Your task to perform on an android device: Is it going to rain this weekend? Image 0: 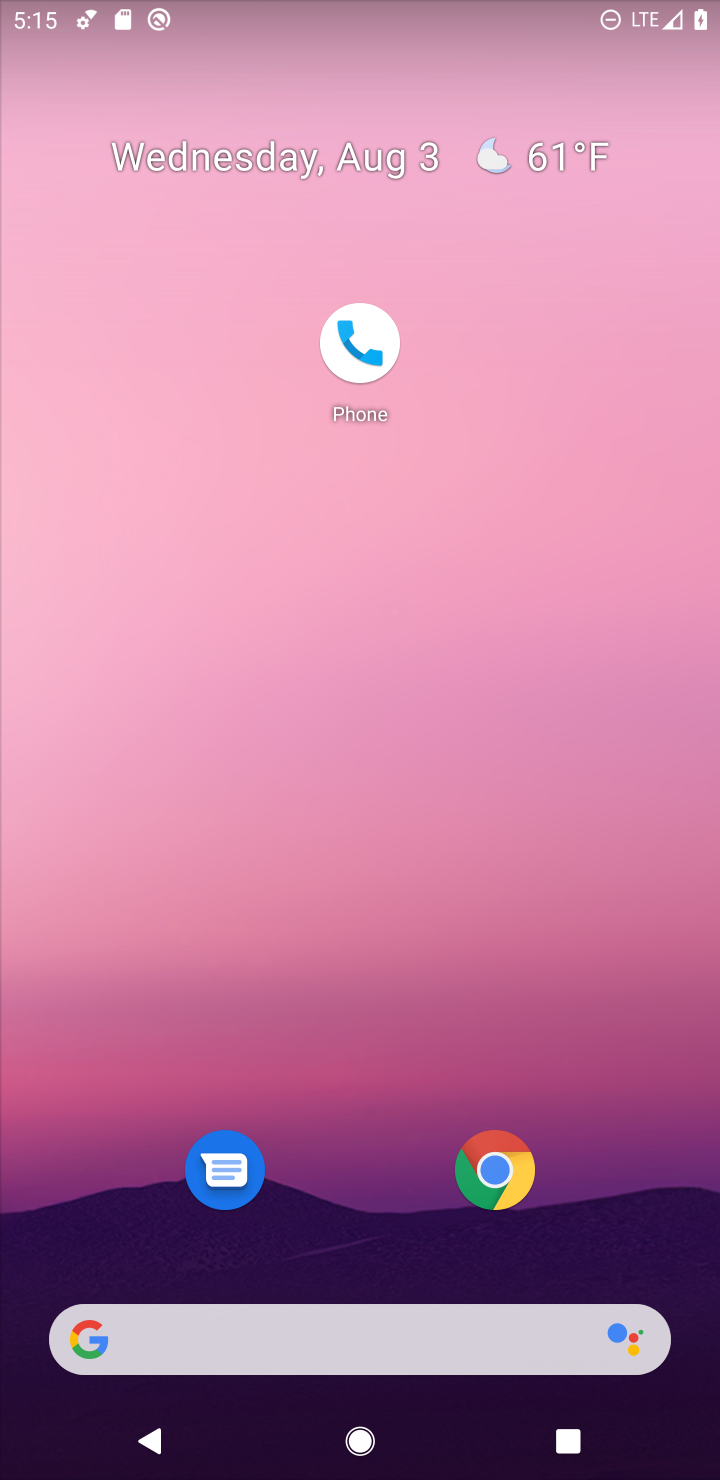
Step 0: click (233, 1335)
Your task to perform on an android device: Is it going to rain this weekend? Image 1: 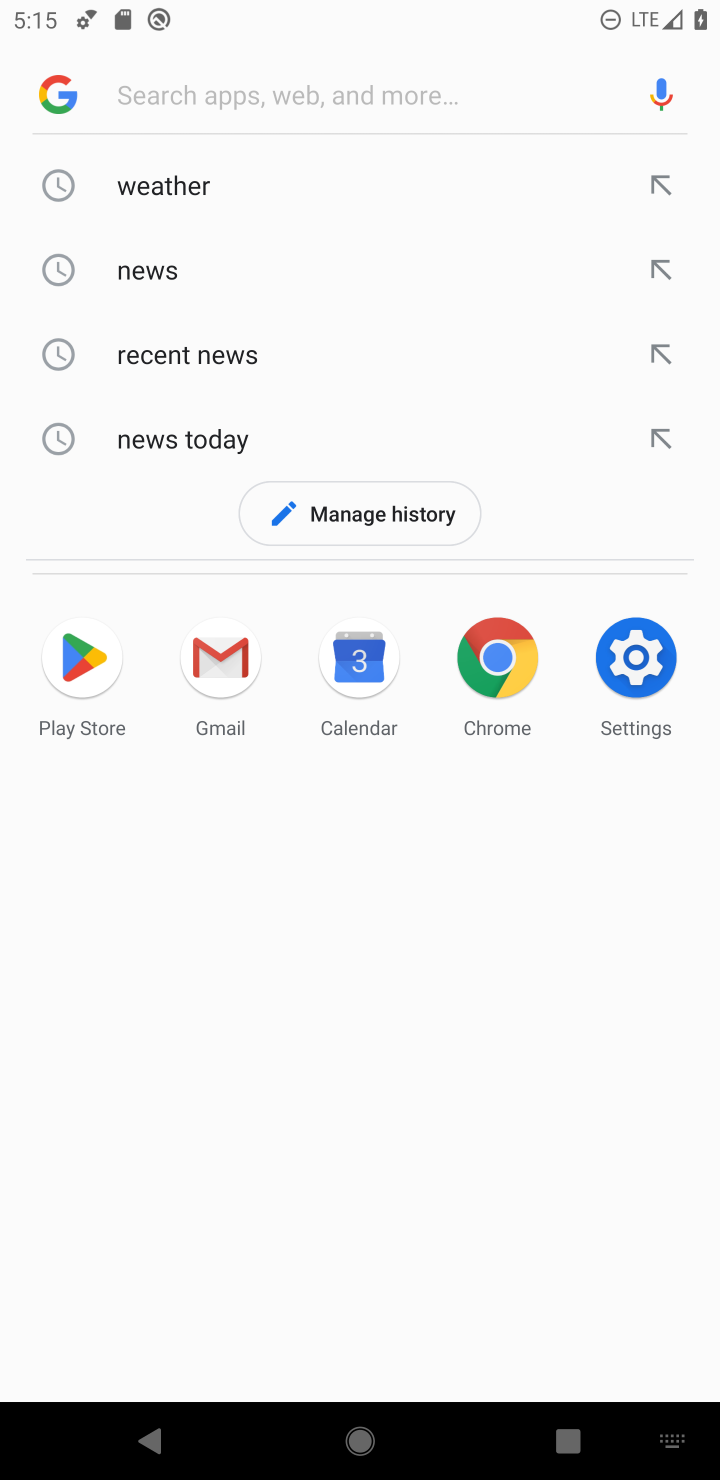
Step 1: click (185, 178)
Your task to perform on an android device: Is it going to rain this weekend? Image 2: 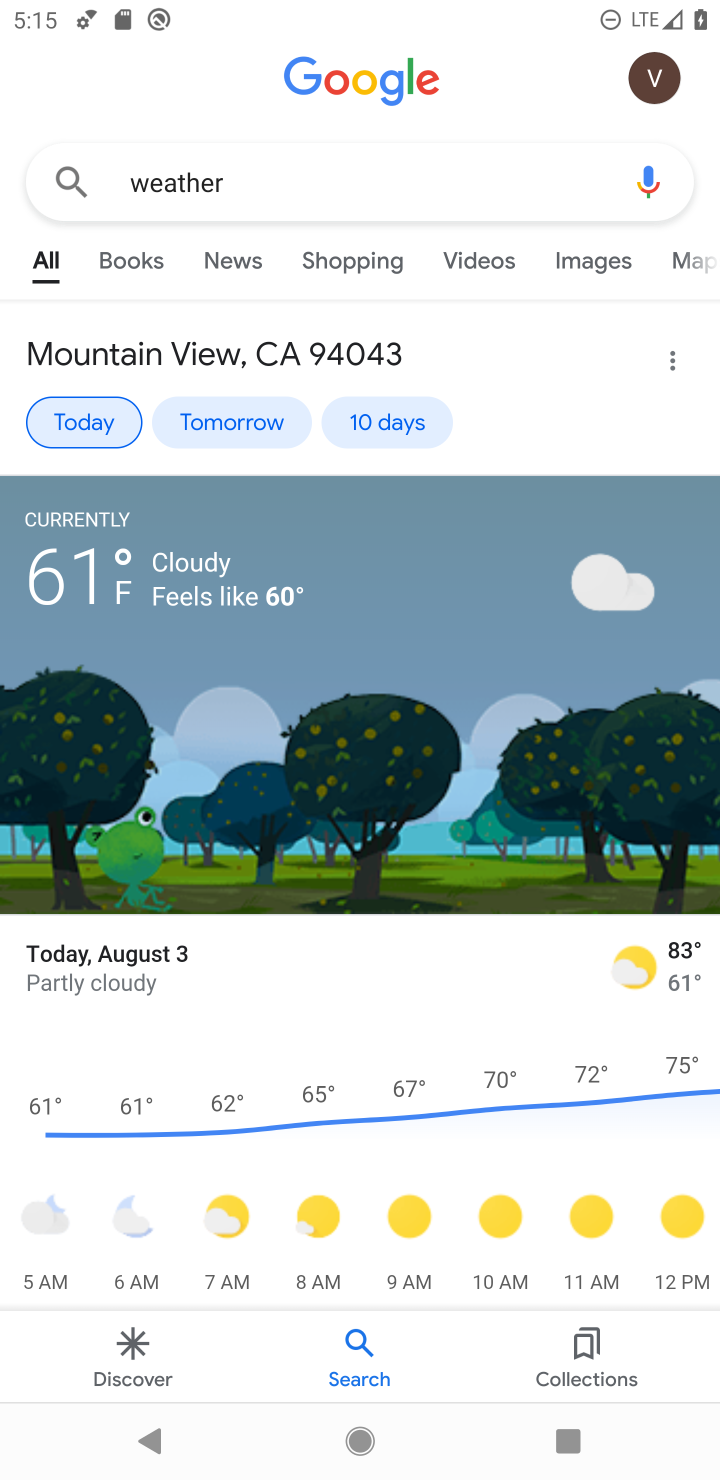
Step 2: click (388, 419)
Your task to perform on an android device: Is it going to rain this weekend? Image 3: 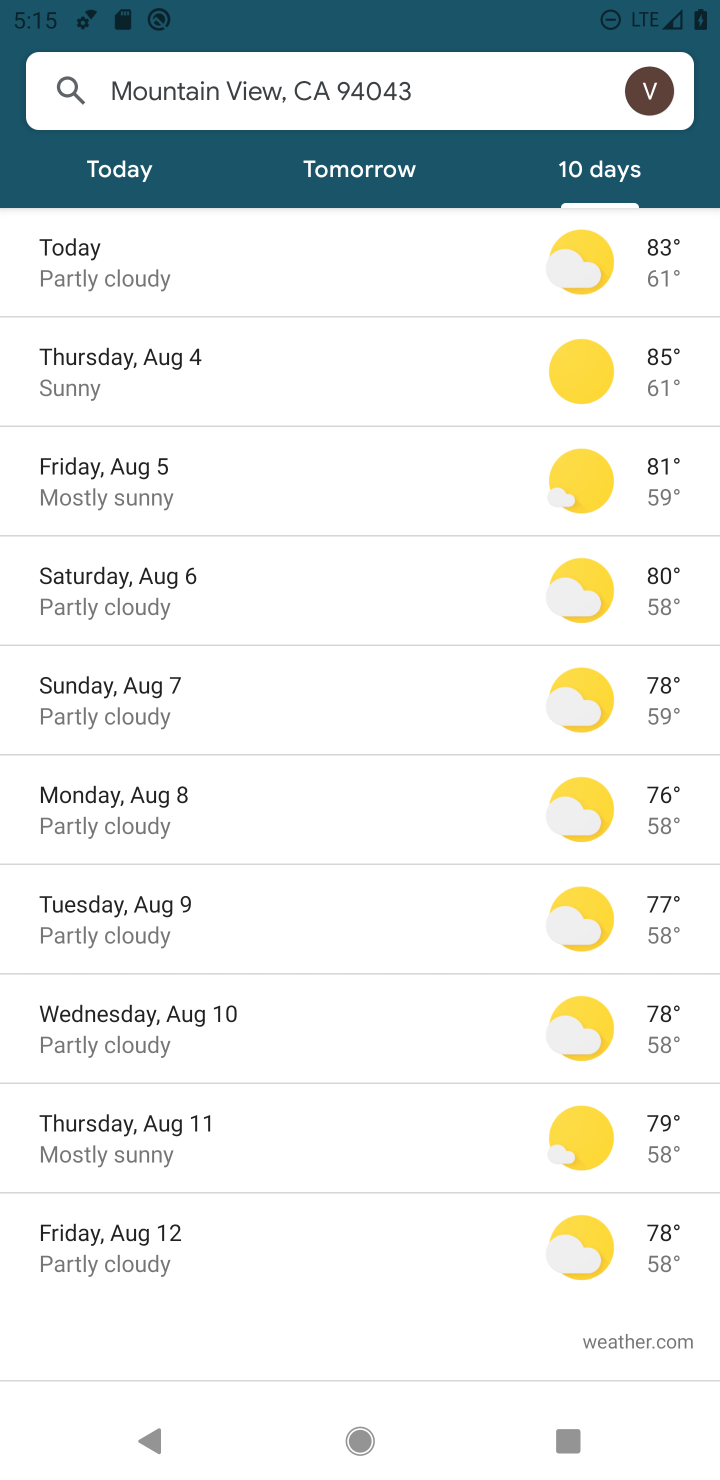
Step 3: task complete